Your task to perform on an android device: Open eBay Image 0: 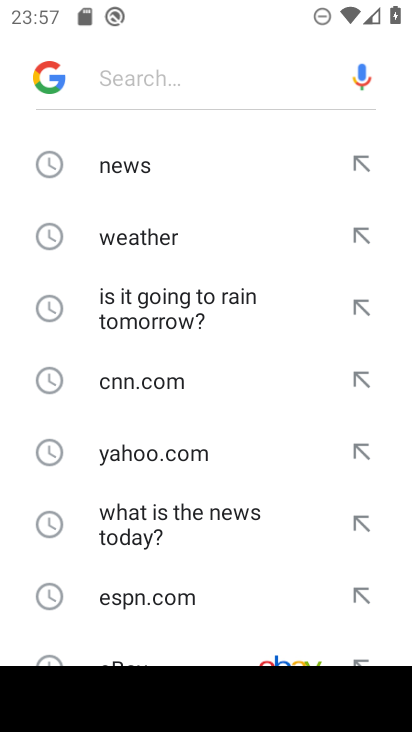
Step 0: type "ebay"
Your task to perform on an android device: Open eBay Image 1: 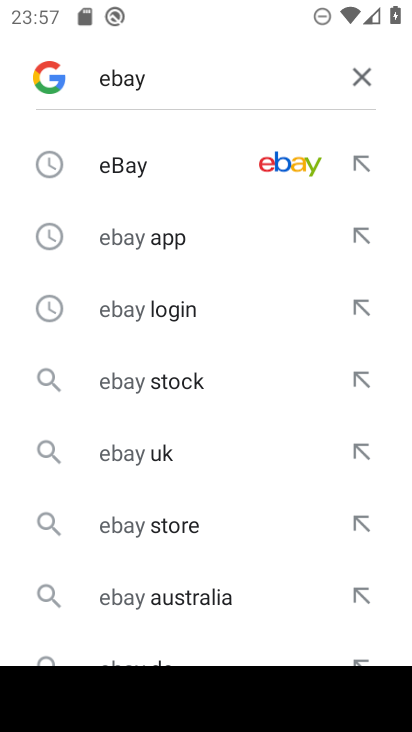
Step 1: click (132, 169)
Your task to perform on an android device: Open eBay Image 2: 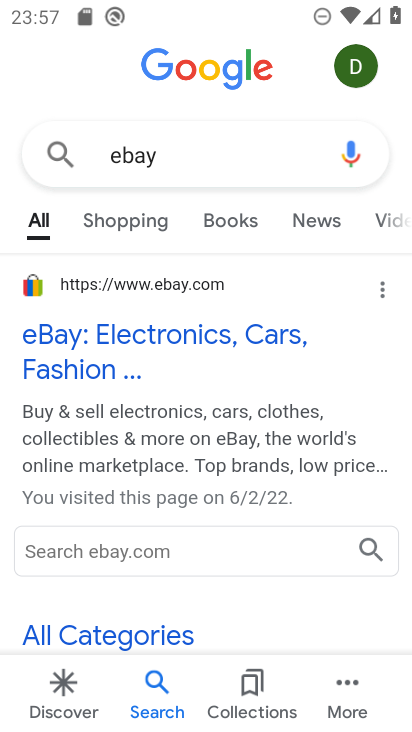
Step 2: click (89, 345)
Your task to perform on an android device: Open eBay Image 3: 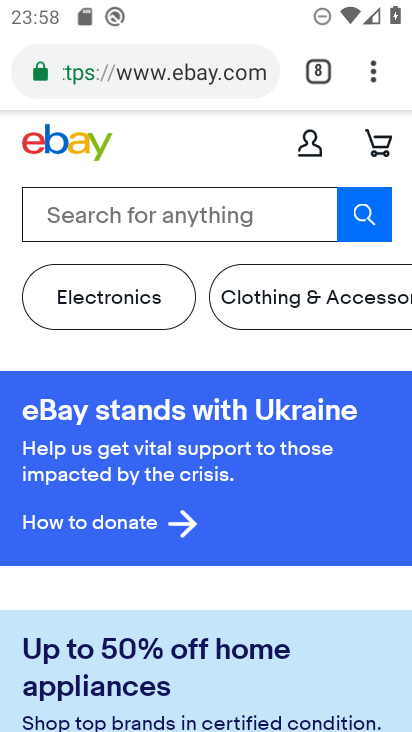
Step 3: task complete